Your task to perform on an android device: change your default location settings in chrome Image 0: 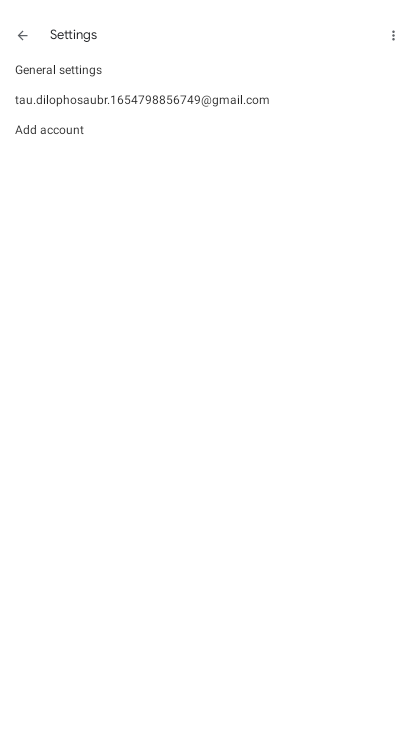
Step 0: press home button
Your task to perform on an android device: change your default location settings in chrome Image 1: 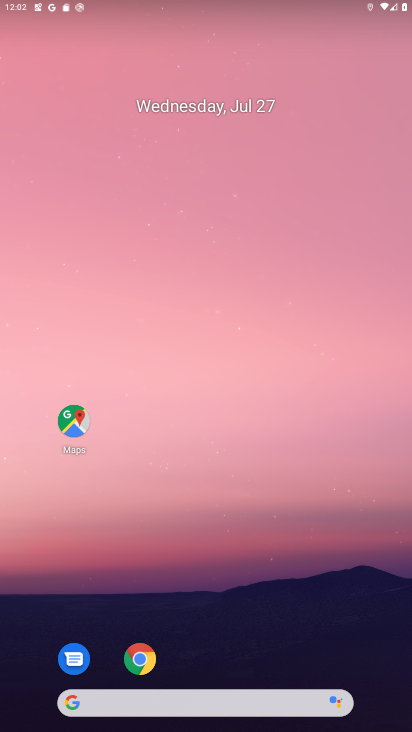
Step 1: drag from (273, 695) to (349, 2)
Your task to perform on an android device: change your default location settings in chrome Image 2: 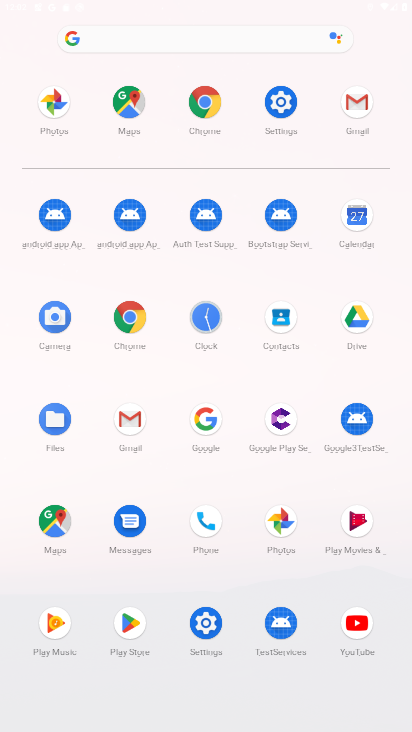
Step 2: click (130, 310)
Your task to perform on an android device: change your default location settings in chrome Image 3: 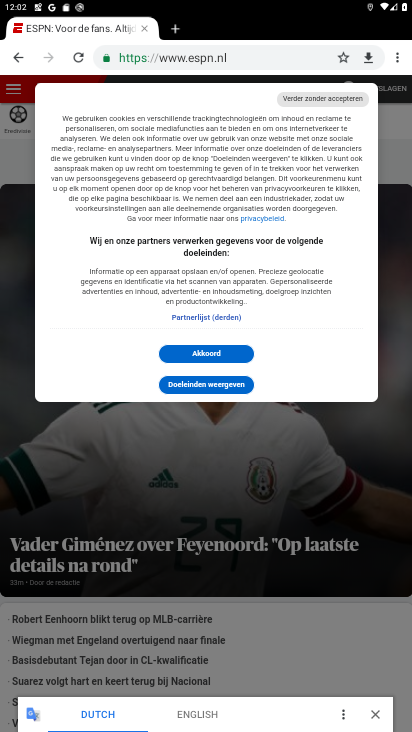
Step 3: click (398, 55)
Your task to perform on an android device: change your default location settings in chrome Image 4: 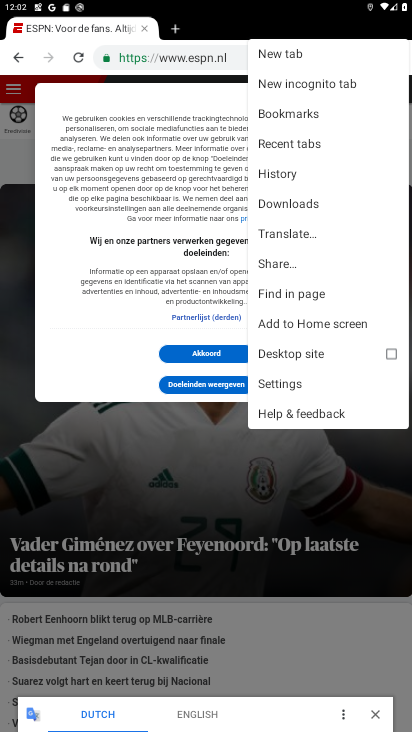
Step 4: click (313, 386)
Your task to perform on an android device: change your default location settings in chrome Image 5: 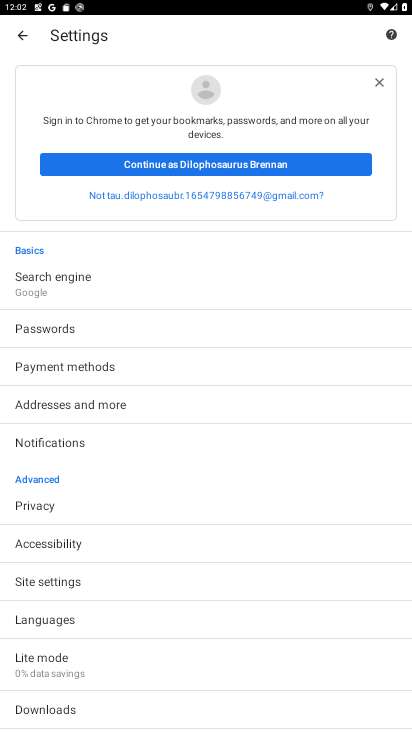
Step 5: click (84, 577)
Your task to perform on an android device: change your default location settings in chrome Image 6: 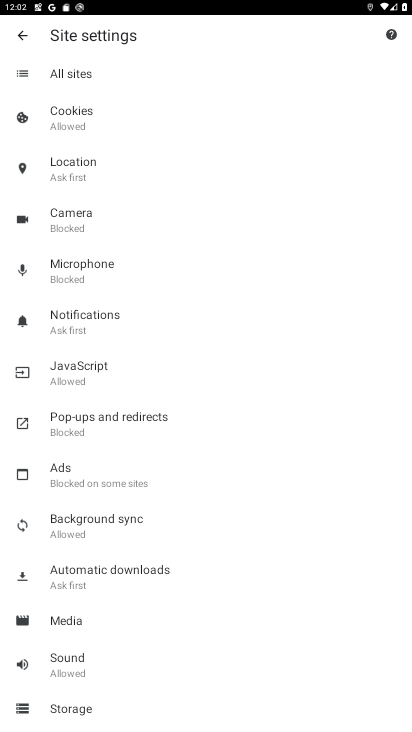
Step 6: click (98, 169)
Your task to perform on an android device: change your default location settings in chrome Image 7: 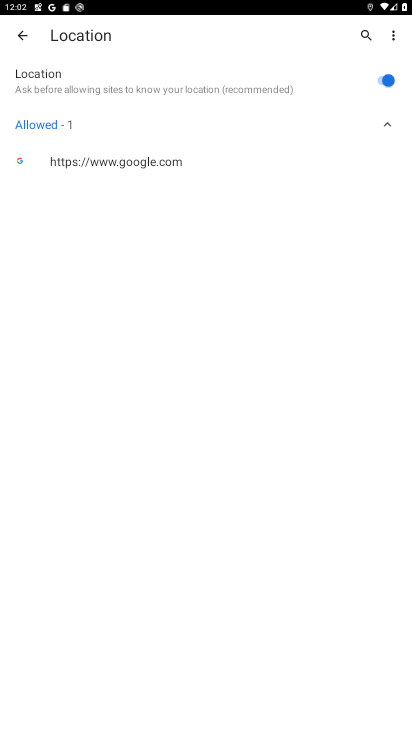
Step 7: task complete